Your task to perform on an android device: Open internet settings Image 0: 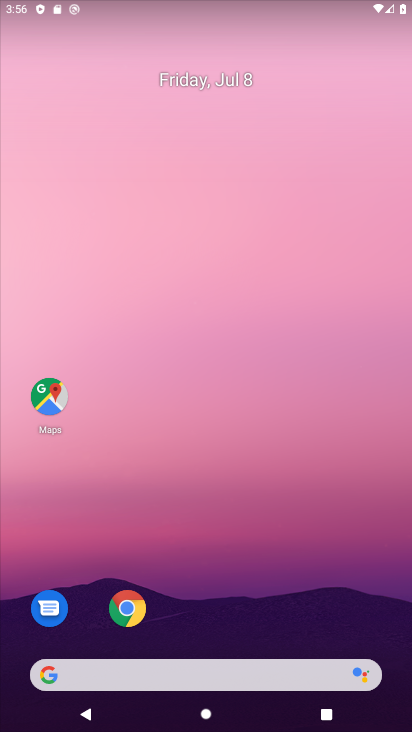
Step 0: press home button
Your task to perform on an android device: Open internet settings Image 1: 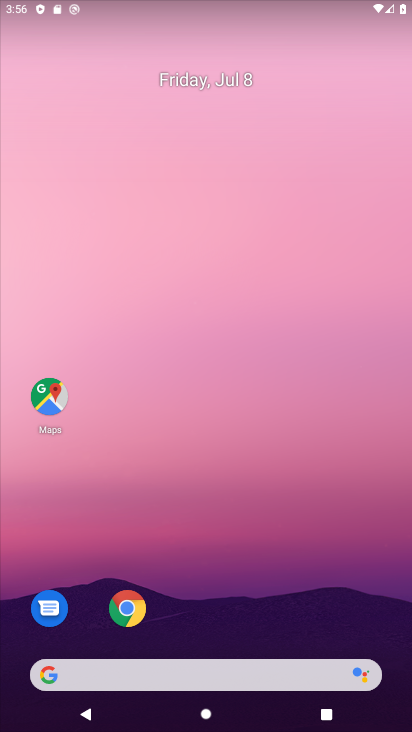
Step 1: drag from (282, 565) to (330, 57)
Your task to perform on an android device: Open internet settings Image 2: 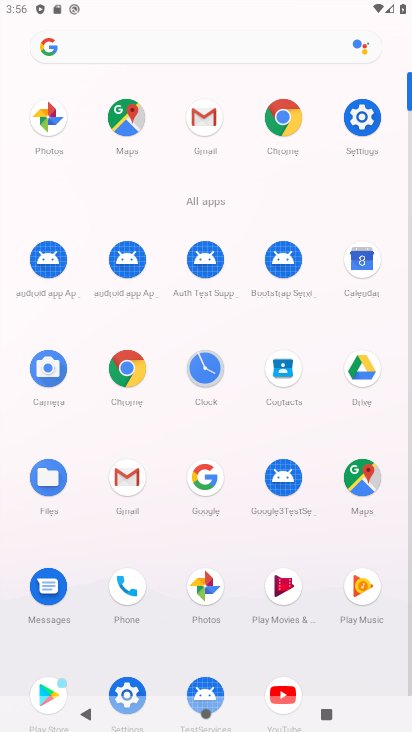
Step 2: click (363, 123)
Your task to perform on an android device: Open internet settings Image 3: 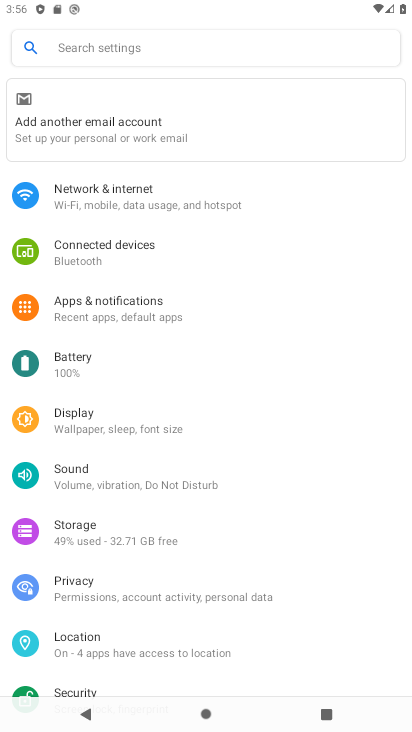
Step 3: click (114, 193)
Your task to perform on an android device: Open internet settings Image 4: 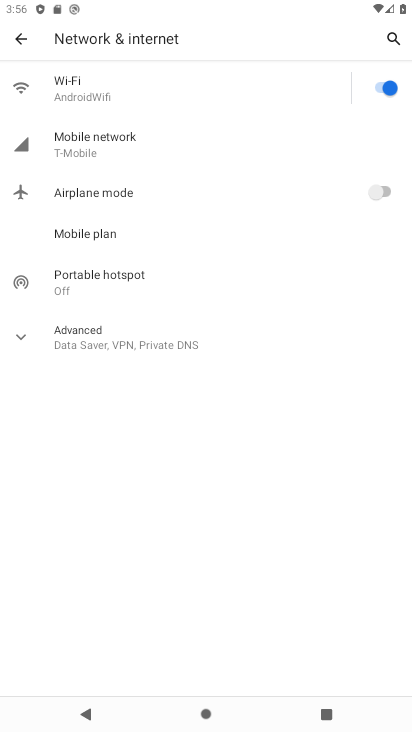
Step 4: click (118, 138)
Your task to perform on an android device: Open internet settings Image 5: 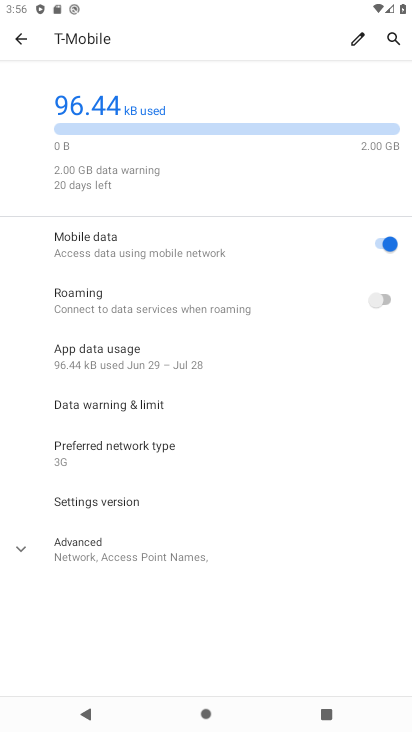
Step 5: task complete